Your task to perform on an android device: Open calendar and show me the fourth week of next month Image 0: 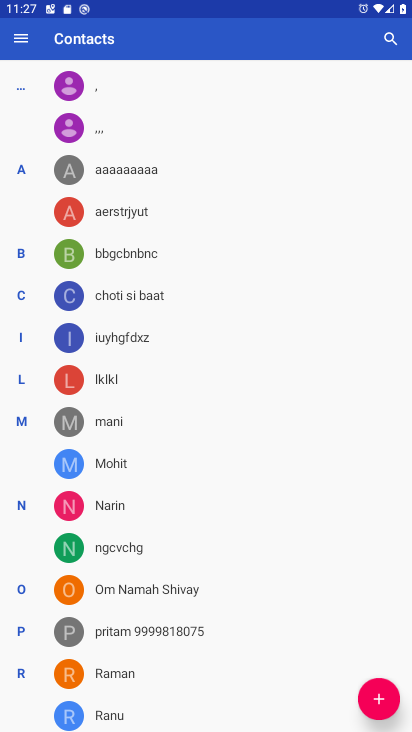
Step 0: task complete